Your task to perform on an android device: Open Maps and search for coffee Image 0: 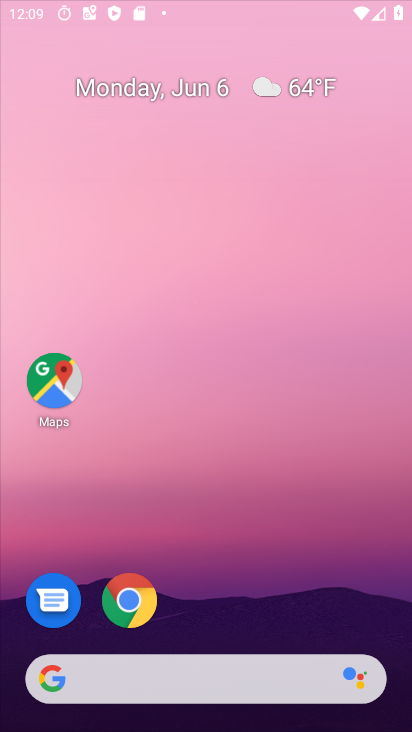
Step 0: drag from (289, 652) to (206, 182)
Your task to perform on an android device: Open Maps and search for coffee Image 1: 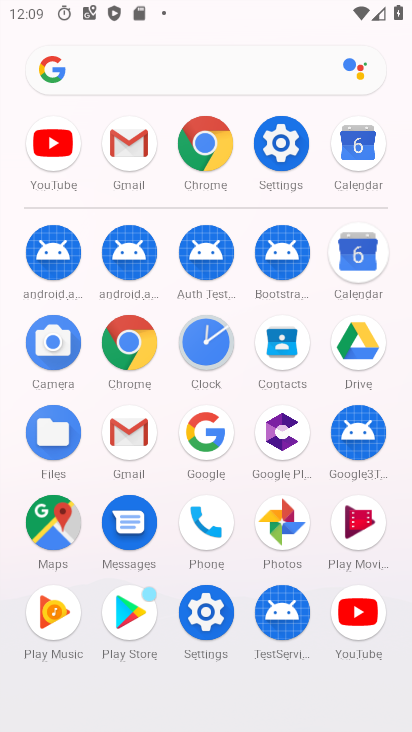
Step 1: click (38, 524)
Your task to perform on an android device: Open Maps and search for coffee Image 2: 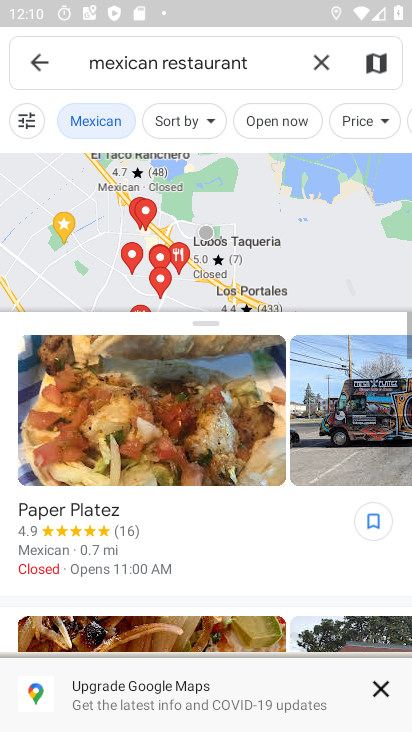
Step 2: click (318, 62)
Your task to perform on an android device: Open Maps and search for coffee Image 3: 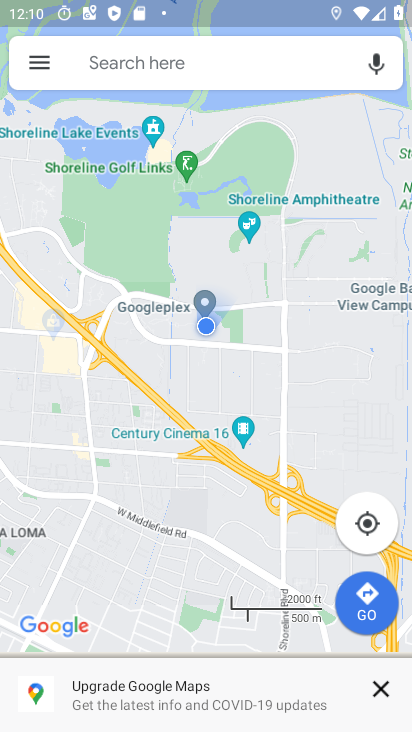
Step 3: click (311, 55)
Your task to perform on an android device: Open Maps and search for coffee Image 4: 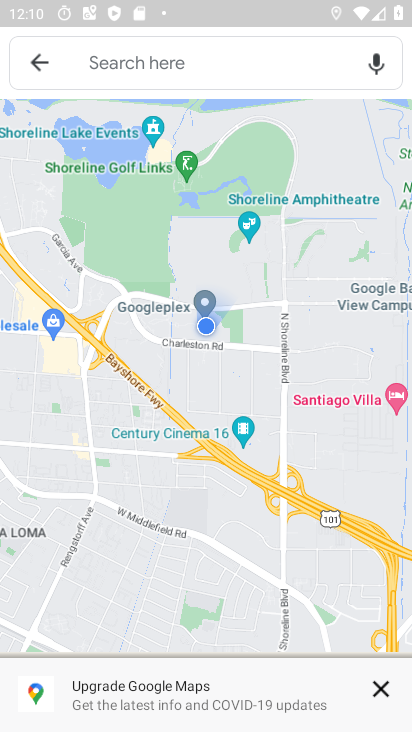
Step 4: click (68, 57)
Your task to perform on an android device: Open Maps and search for coffee Image 5: 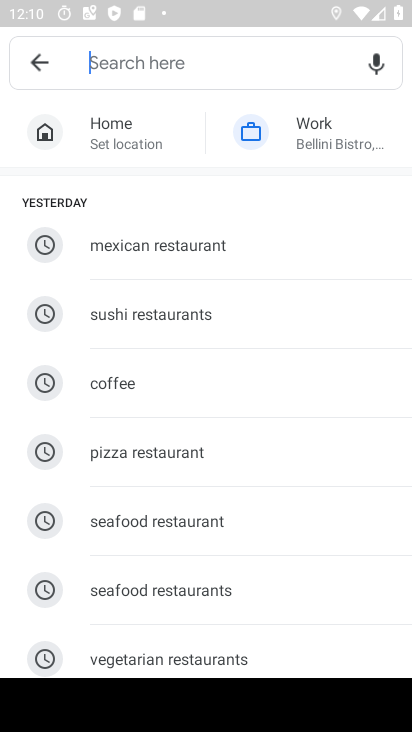
Step 5: click (142, 375)
Your task to perform on an android device: Open Maps and search for coffee Image 6: 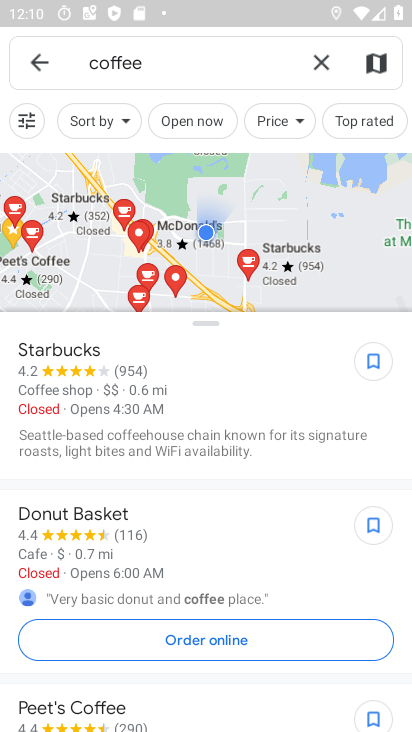
Step 6: task complete